Your task to perform on an android device: turn on location history Image 0: 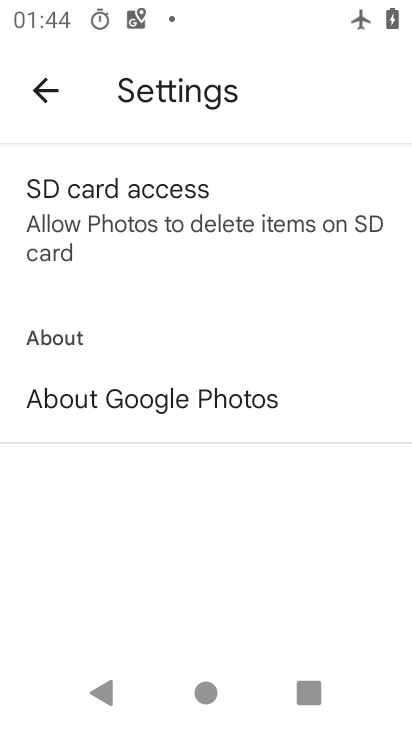
Step 0: press home button
Your task to perform on an android device: turn on location history Image 1: 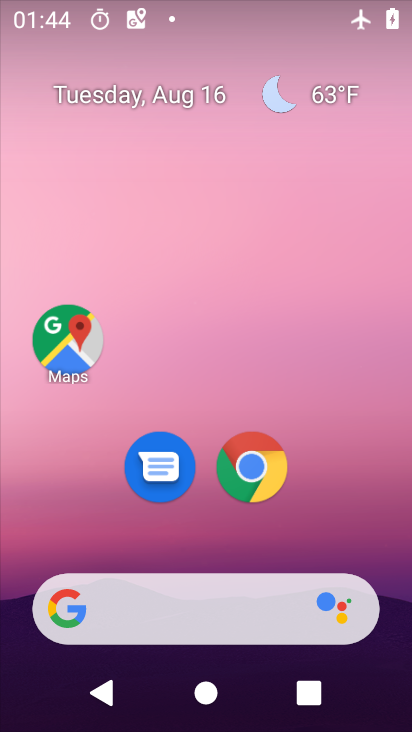
Step 1: drag from (357, 536) to (372, 149)
Your task to perform on an android device: turn on location history Image 2: 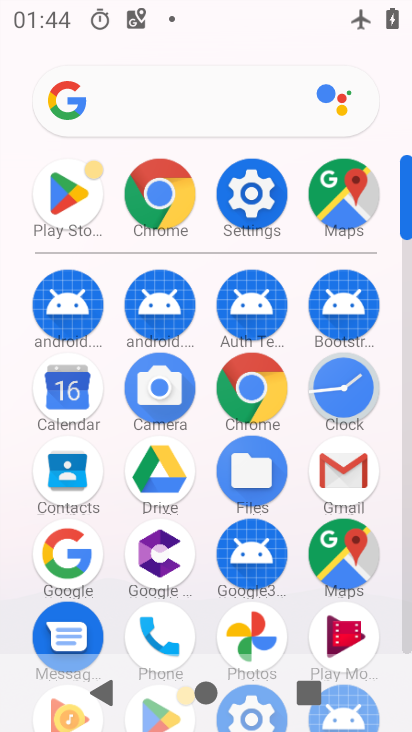
Step 2: click (244, 195)
Your task to perform on an android device: turn on location history Image 3: 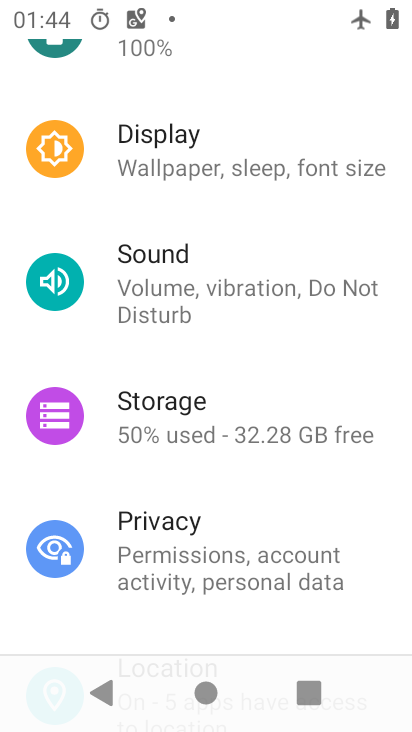
Step 3: drag from (356, 216) to (369, 337)
Your task to perform on an android device: turn on location history Image 4: 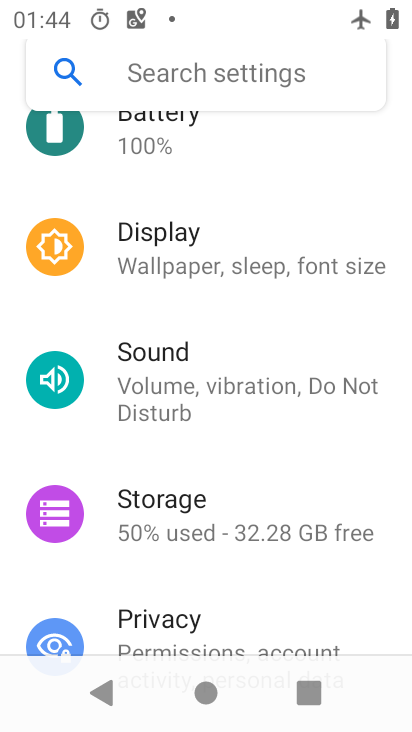
Step 4: drag from (354, 170) to (353, 310)
Your task to perform on an android device: turn on location history Image 5: 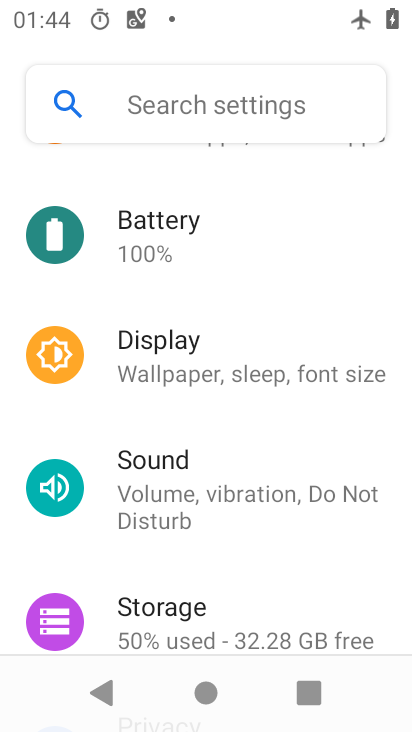
Step 5: drag from (353, 178) to (344, 361)
Your task to perform on an android device: turn on location history Image 6: 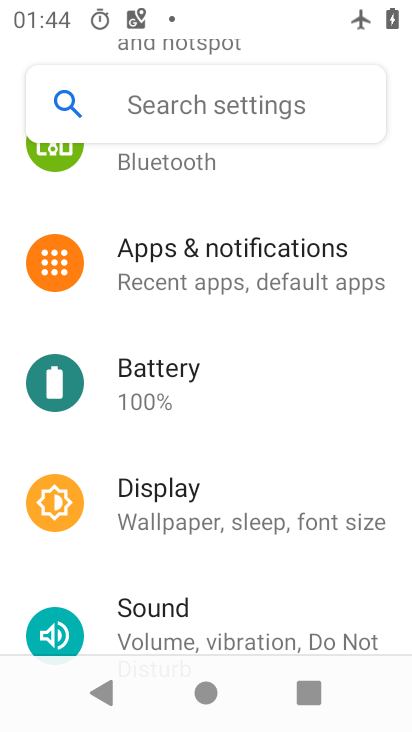
Step 6: drag from (373, 189) to (364, 343)
Your task to perform on an android device: turn on location history Image 7: 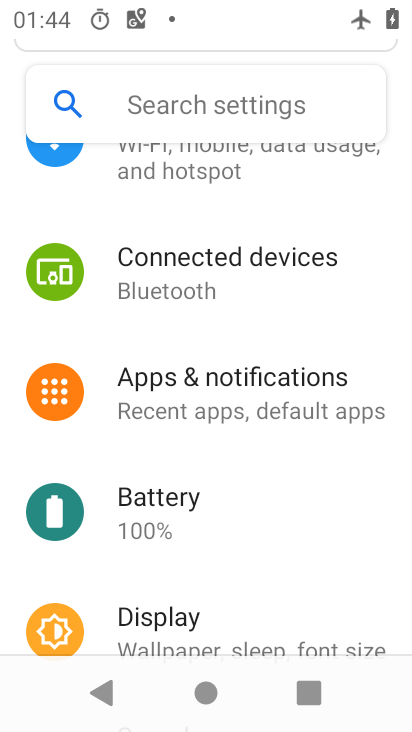
Step 7: drag from (368, 272) to (369, 417)
Your task to perform on an android device: turn on location history Image 8: 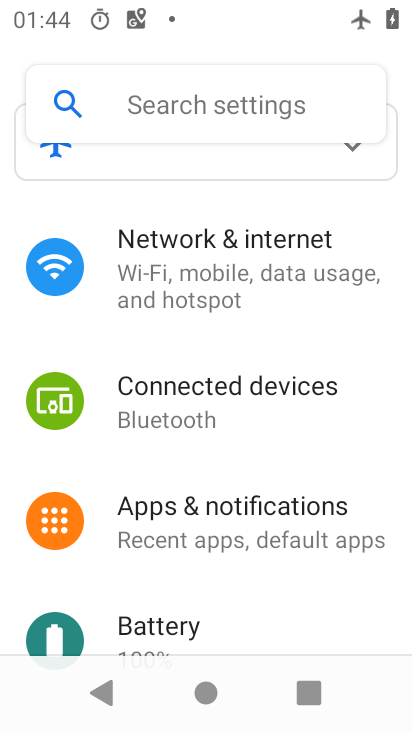
Step 8: drag from (368, 456) to (383, 338)
Your task to perform on an android device: turn on location history Image 9: 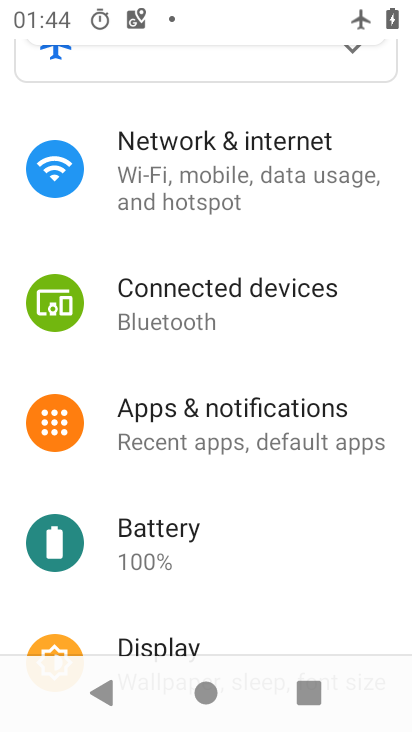
Step 9: drag from (349, 532) to (368, 391)
Your task to perform on an android device: turn on location history Image 10: 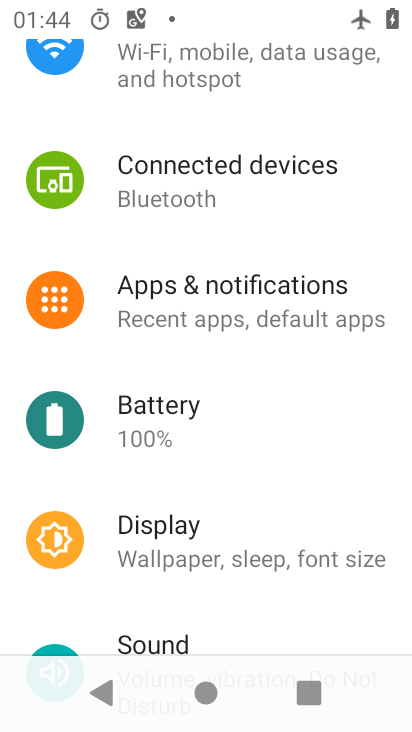
Step 10: drag from (338, 569) to (350, 430)
Your task to perform on an android device: turn on location history Image 11: 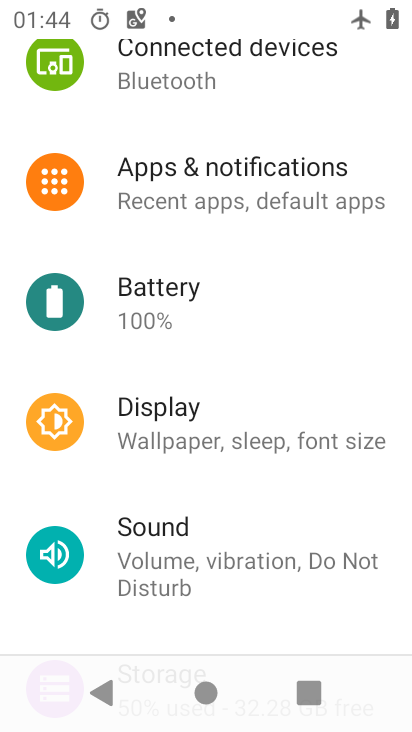
Step 11: drag from (304, 590) to (325, 444)
Your task to perform on an android device: turn on location history Image 12: 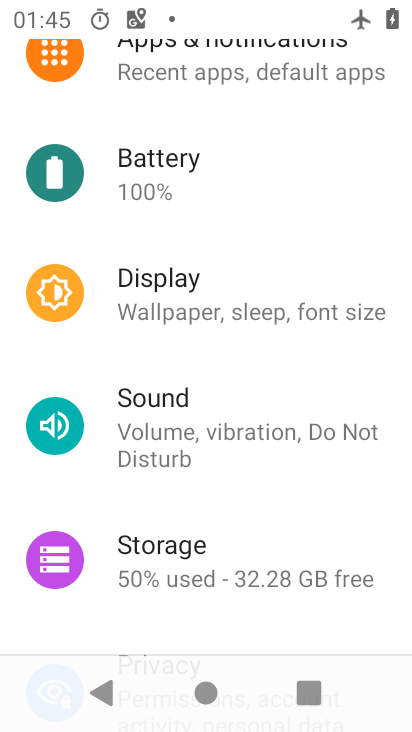
Step 12: drag from (314, 548) to (320, 396)
Your task to perform on an android device: turn on location history Image 13: 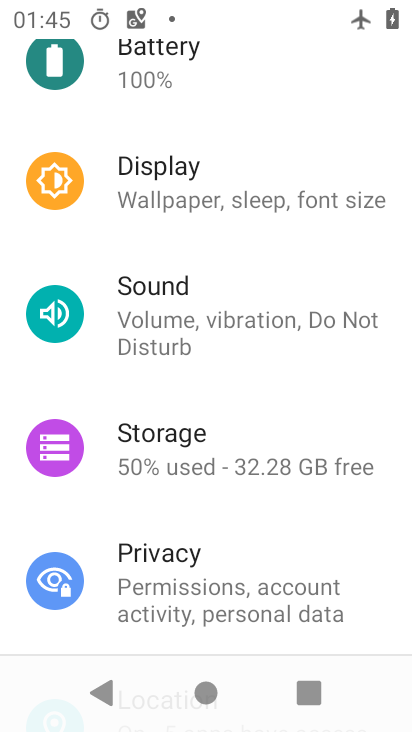
Step 13: drag from (300, 534) to (296, 384)
Your task to perform on an android device: turn on location history Image 14: 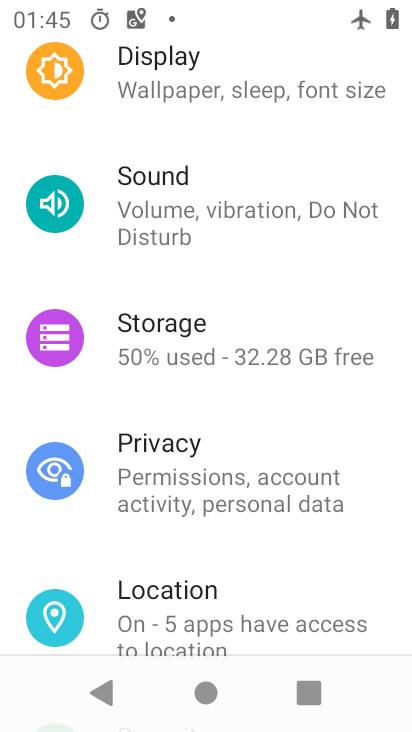
Step 14: drag from (292, 572) to (308, 384)
Your task to perform on an android device: turn on location history Image 15: 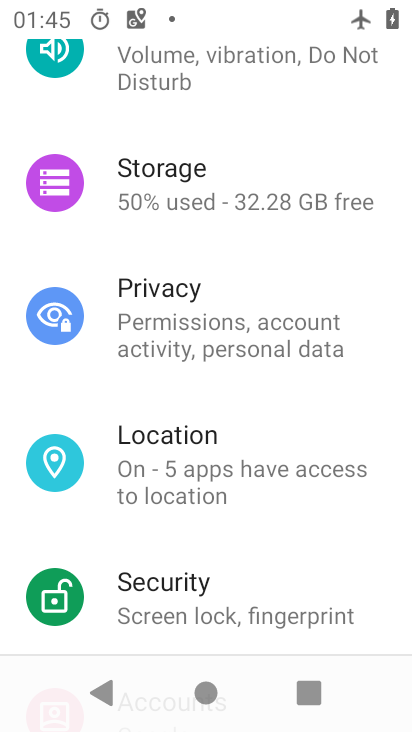
Step 15: drag from (293, 525) to (311, 379)
Your task to perform on an android device: turn on location history Image 16: 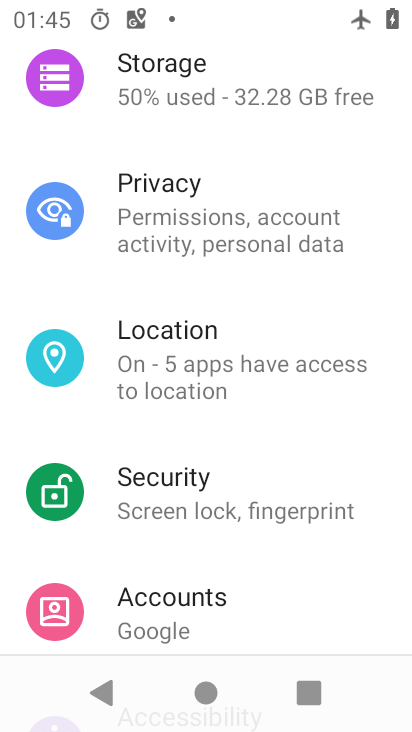
Step 16: click (311, 379)
Your task to perform on an android device: turn on location history Image 17: 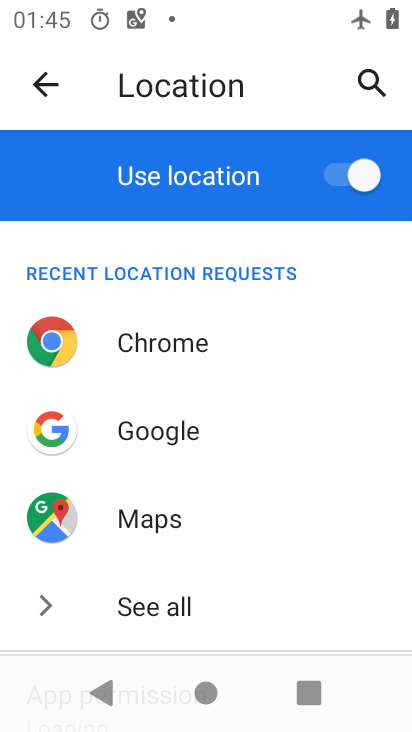
Step 17: drag from (302, 512) to (304, 369)
Your task to perform on an android device: turn on location history Image 18: 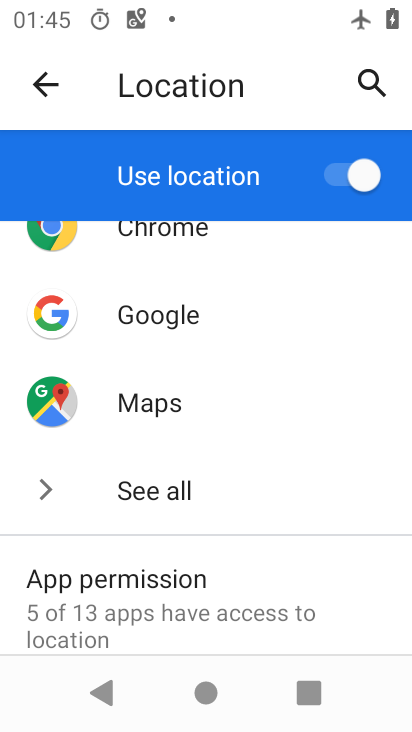
Step 18: drag from (317, 555) to (333, 376)
Your task to perform on an android device: turn on location history Image 19: 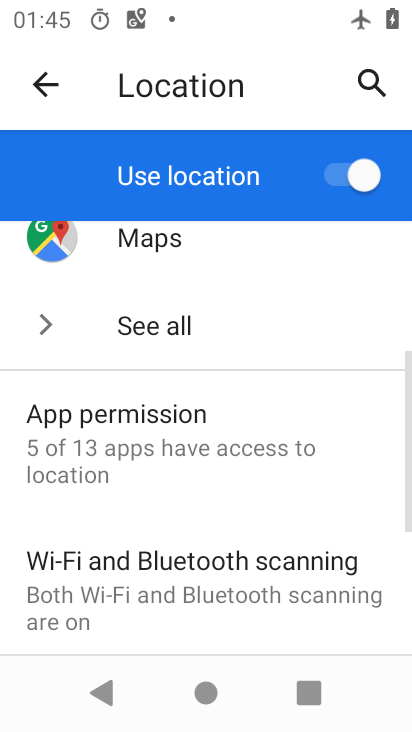
Step 19: drag from (297, 556) to (322, 462)
Your task to perform on an android device: turn on location history Image 20: 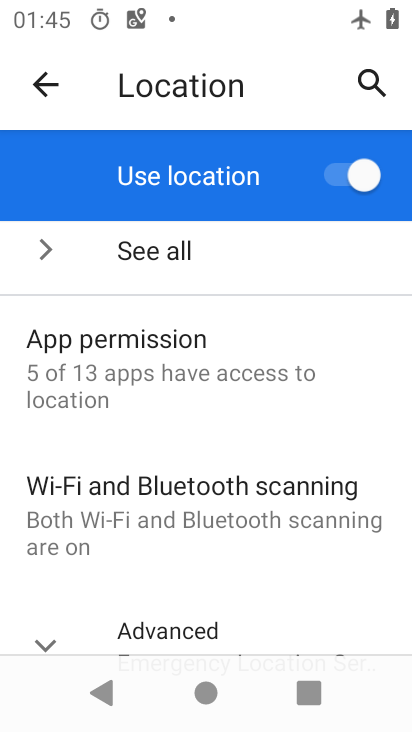
Step 20: drag from (289, 577) to (317, 391)
Your task to perform on an android device: turn on location history Image 21: 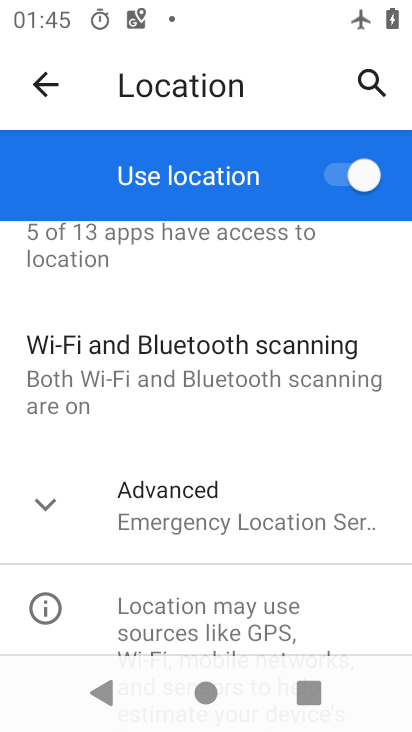
Step 21: click (281, 498)
Your task to perform on an android device: turn on location history Image 22: 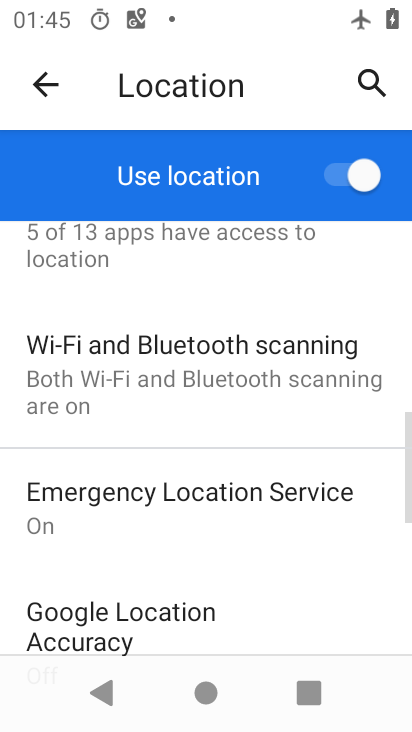
Step 22: task complete